Your task to perform on an android device: empty trash in the gmail app Image 0: 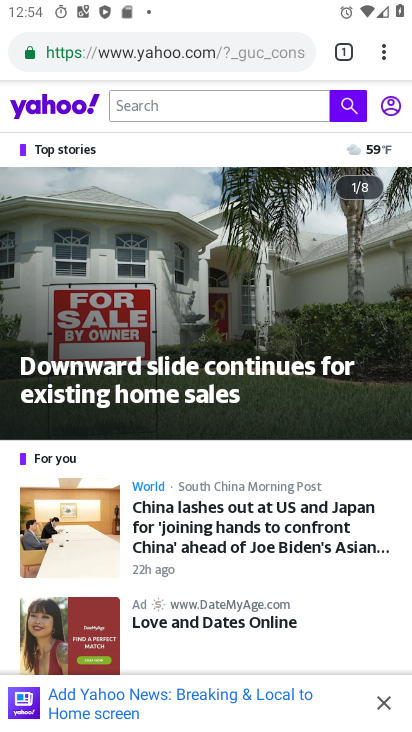
Step 0: press home button
Your task to perform on an android device: empty trash in the gmail app Image 1: 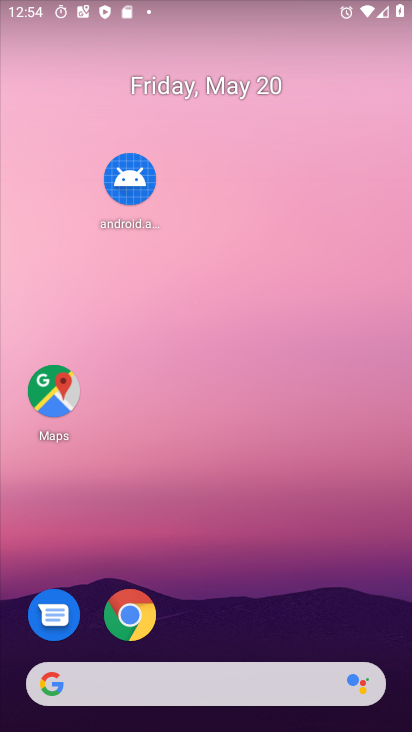
Step 1: drag from (273, 556) to (262, 190)
Your task to perform on an android device: empty trash in the gmail app Image 2: 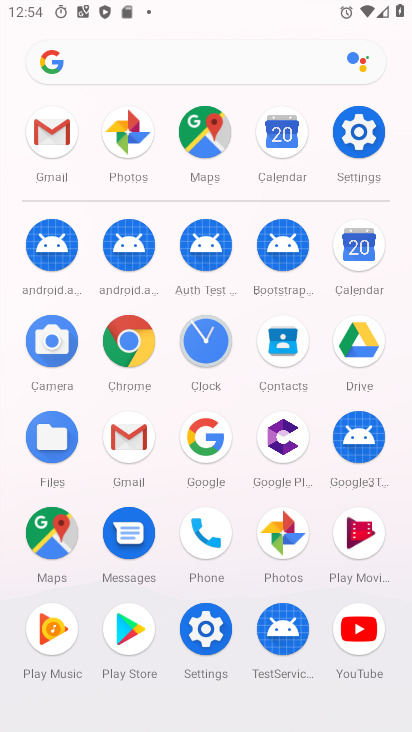
Step 2: click (142, 452)
Your task to perform on an android device: empty trash in the gmail app Image 3: 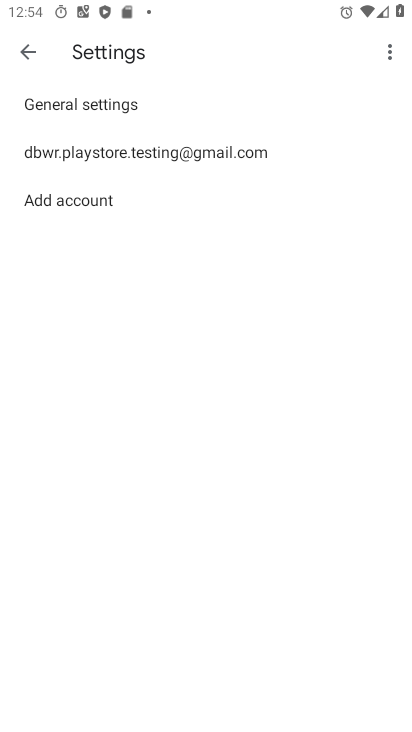
Step 3: click (32, 48)
Your task to perform on an android device: empty trash in the gmail app Image 4: 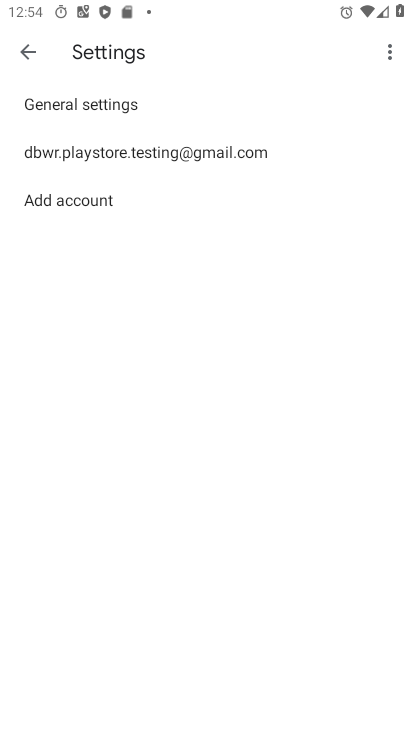
Step 4: click (32, 48)
Your task to perform on an android device: empty trash in the gmail app Image 5: 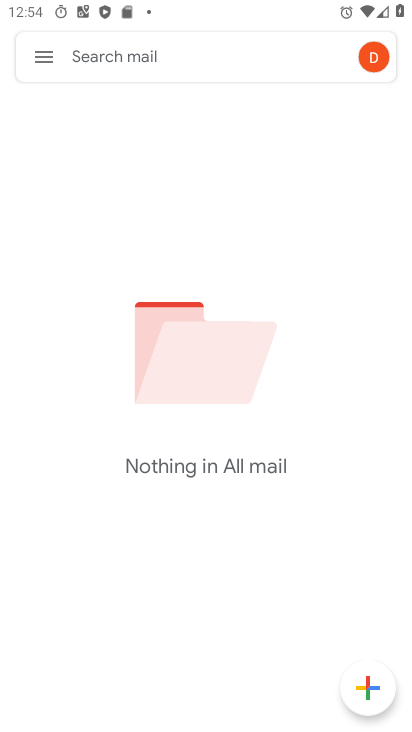
Step 5: click (32, 48)
Your task to perform on an android device: empty trash in the gmail app Image 6: 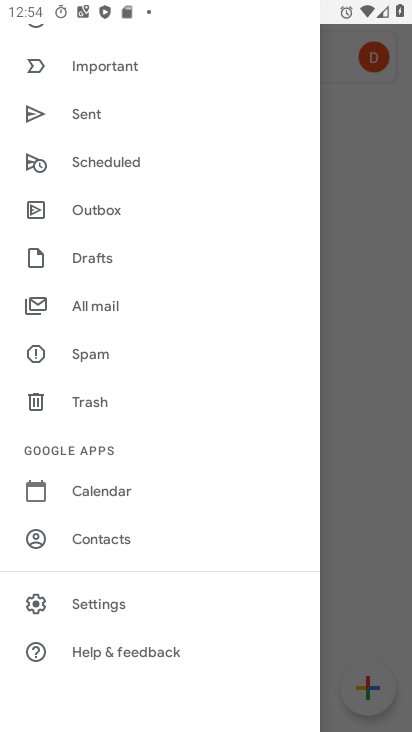
Step 6: click (104, 397)
Your task to perform on an android device: empty trash in the gmail app Image 7: 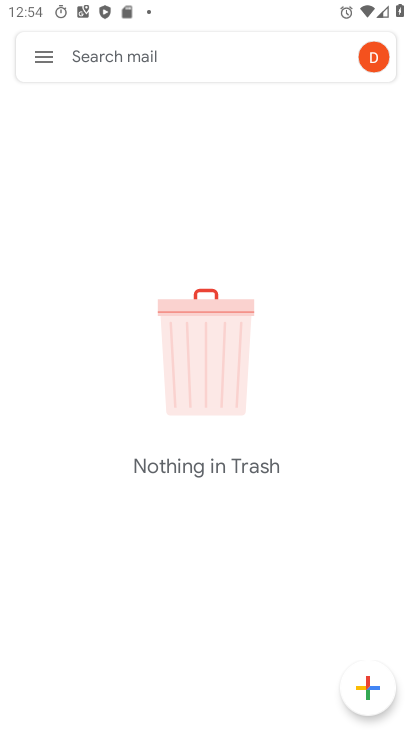
Step 7: task complete